Your task to perform on an android device: Clear the shopping cart on newegg.com. Image 0: 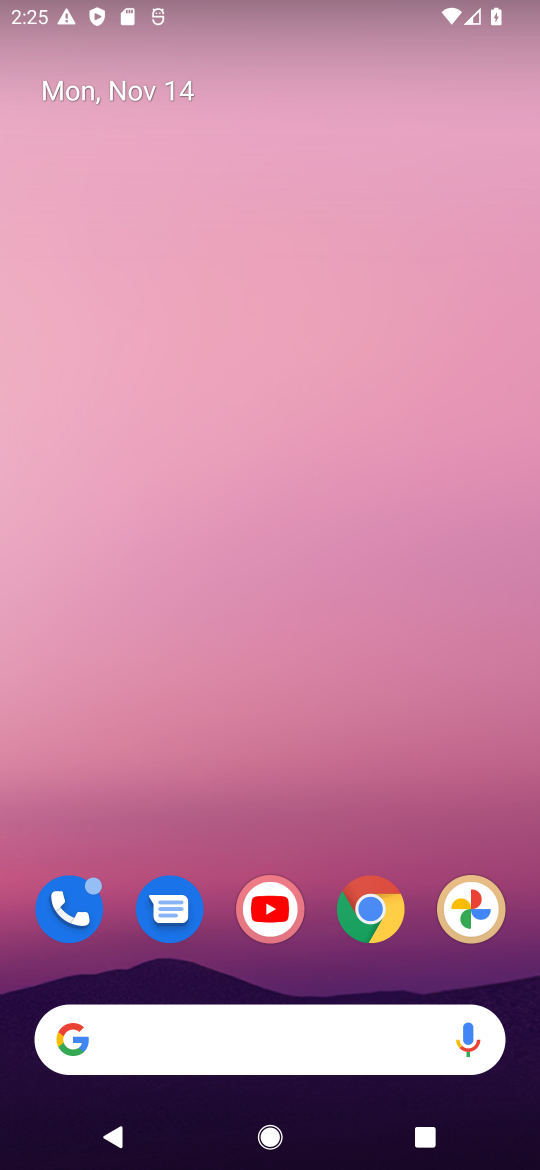
Step 0: drag from (326, 988) to (352, 149)
Your task to perform on an android device: Clear the shopping cart on newegg.com. Image 1: 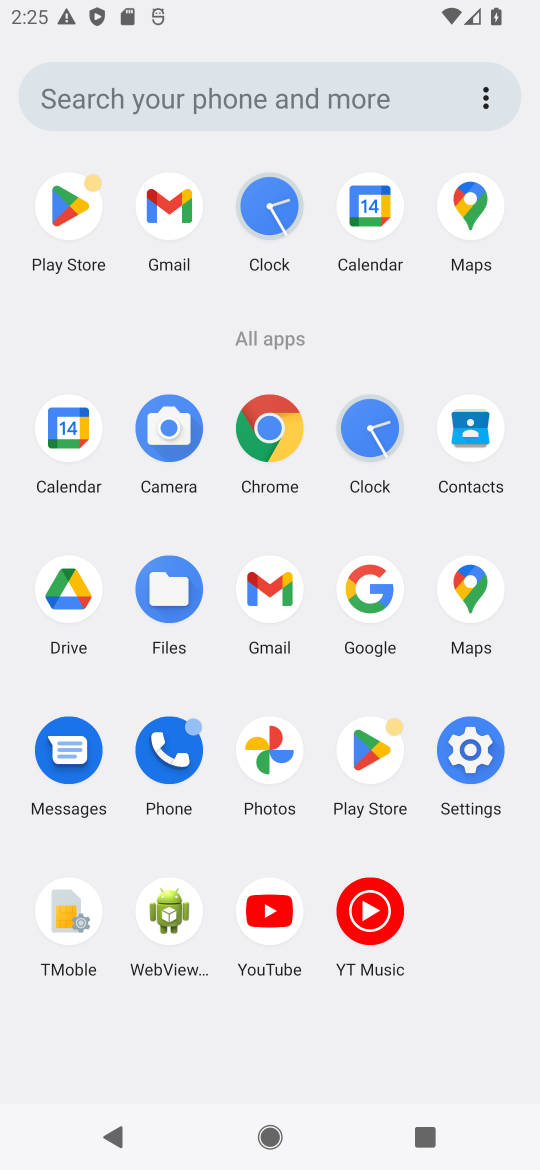
Step 1: click (265, 442)
Your task to perform on an android device: Clear the shopping cart on newegg.com. Image 2: 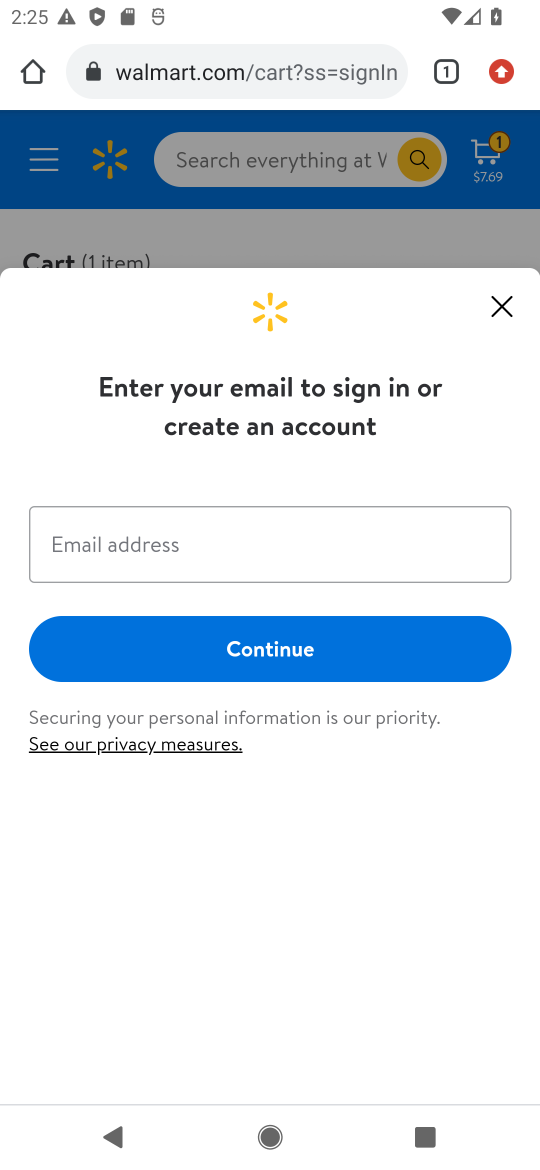
Step 2: click (313, 63)
Your task to perform on an android device: Clear the shopping cart on newegg.com. Image 3: 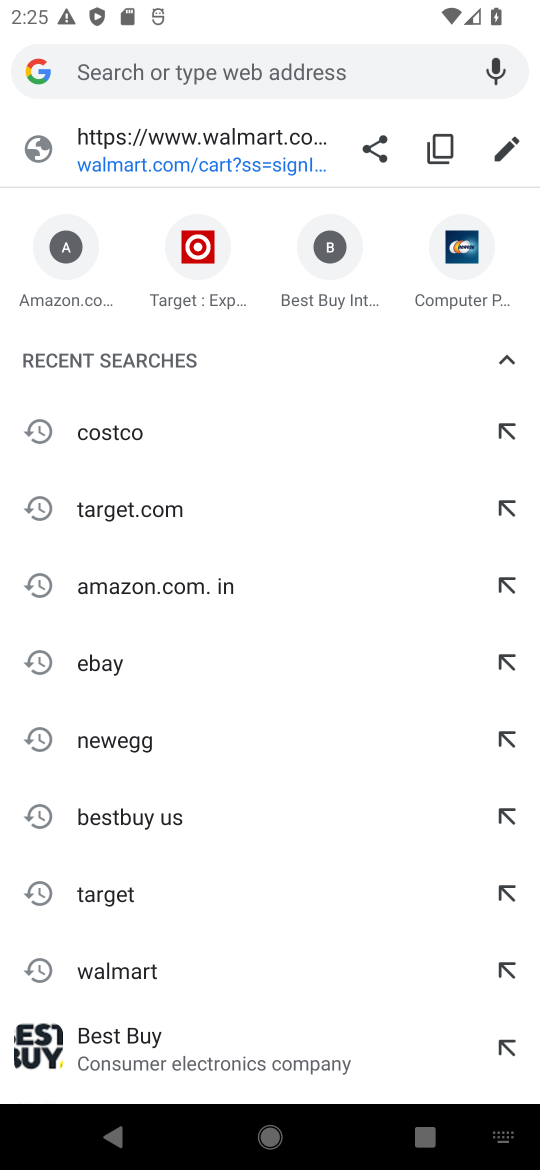
Step 3: type "newegg.com"
Your task to perform on an android device: Clear the shopping cart on newegg.com. Image 4: 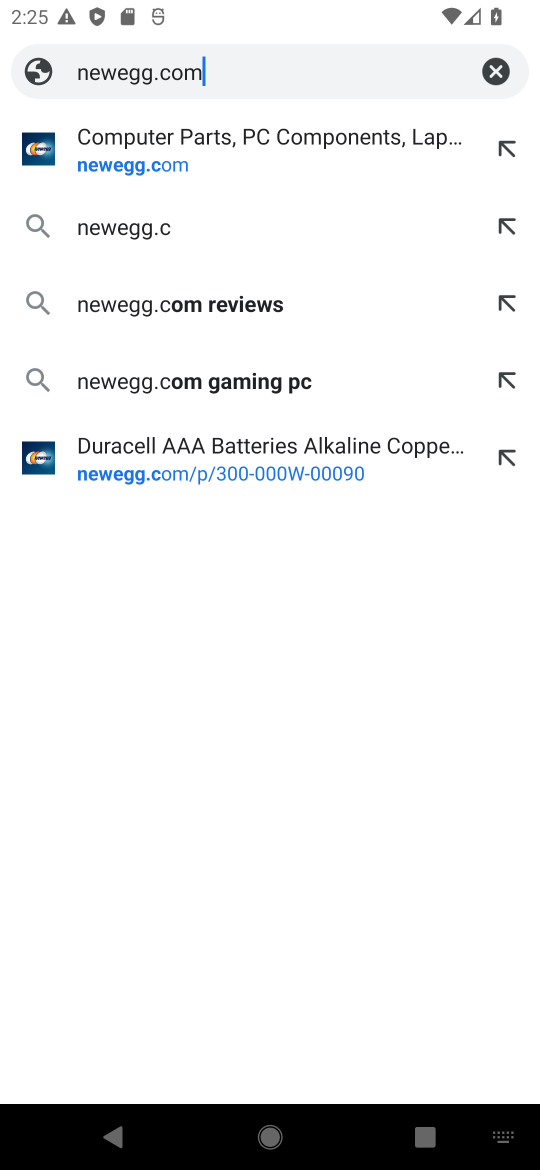
Step 4: press enter
Your task to perform on an android device: Clear the shopping cart on newegg.com. Image 5: 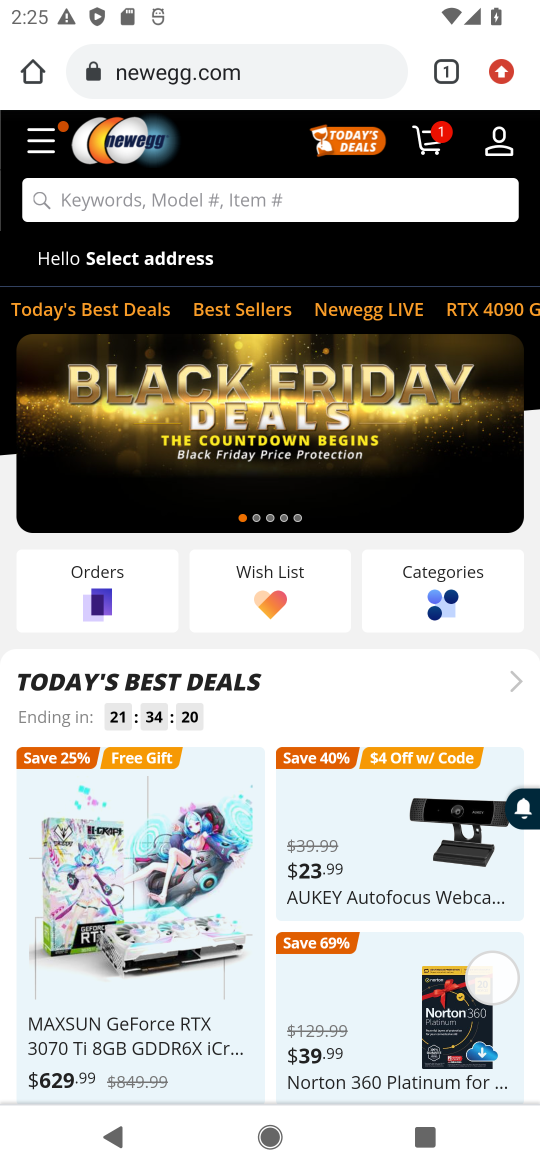
Step 5: click (436, 130)
Your task to perform on an android device: Clear the shopping cart on newegg.com. Image 6: 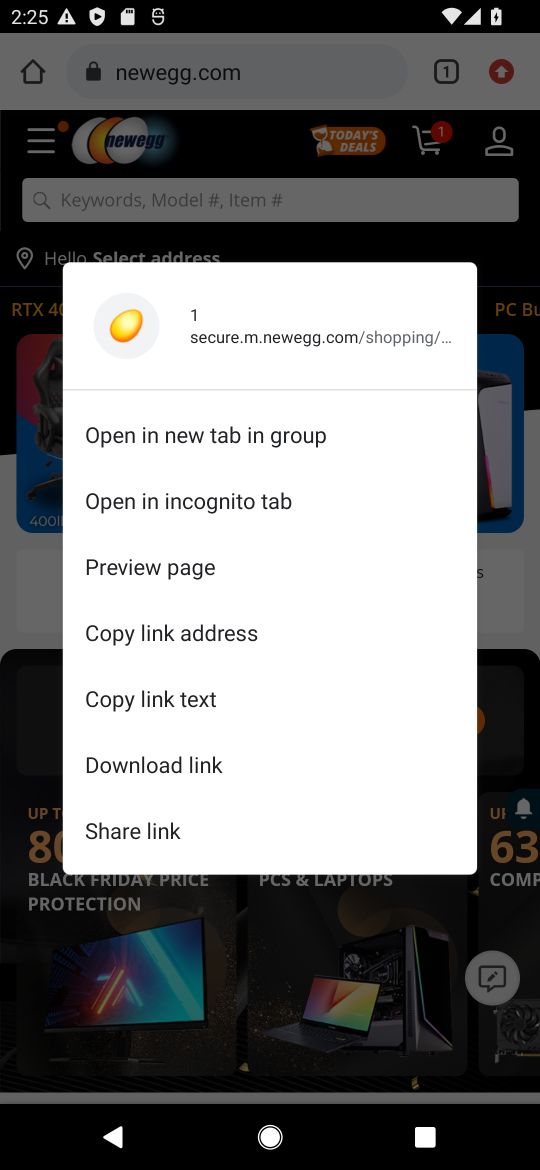
Step 6: click (426, 186)
Your task to perform on an android device: Clear the shopping cart on newegg.com. Image 7: 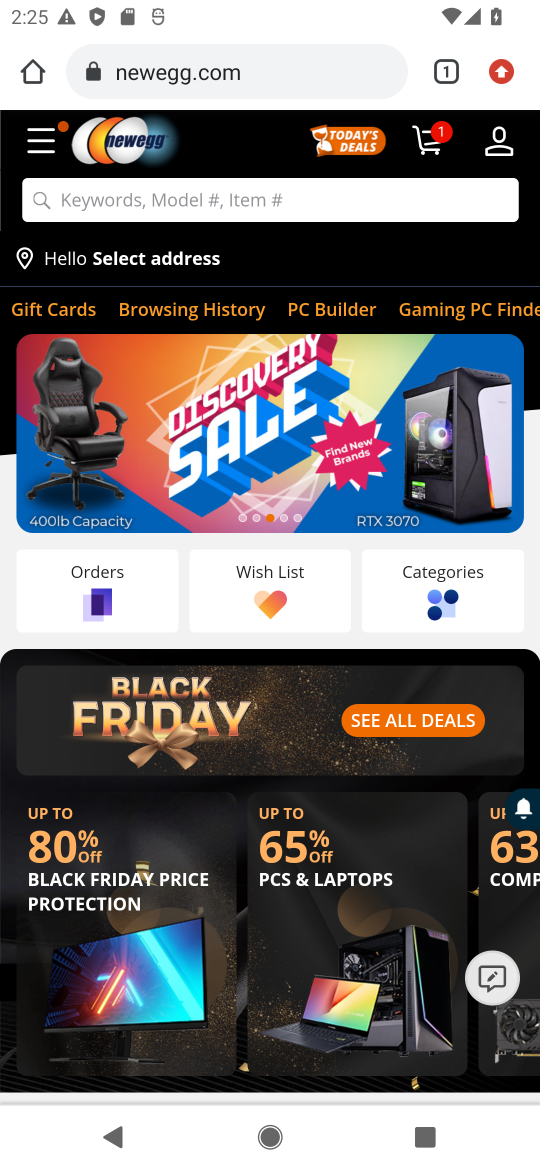
Step 7: click (444, 140)
Your task to perform on an android device: Clear the shopping cart on newegg.com. Image 8: 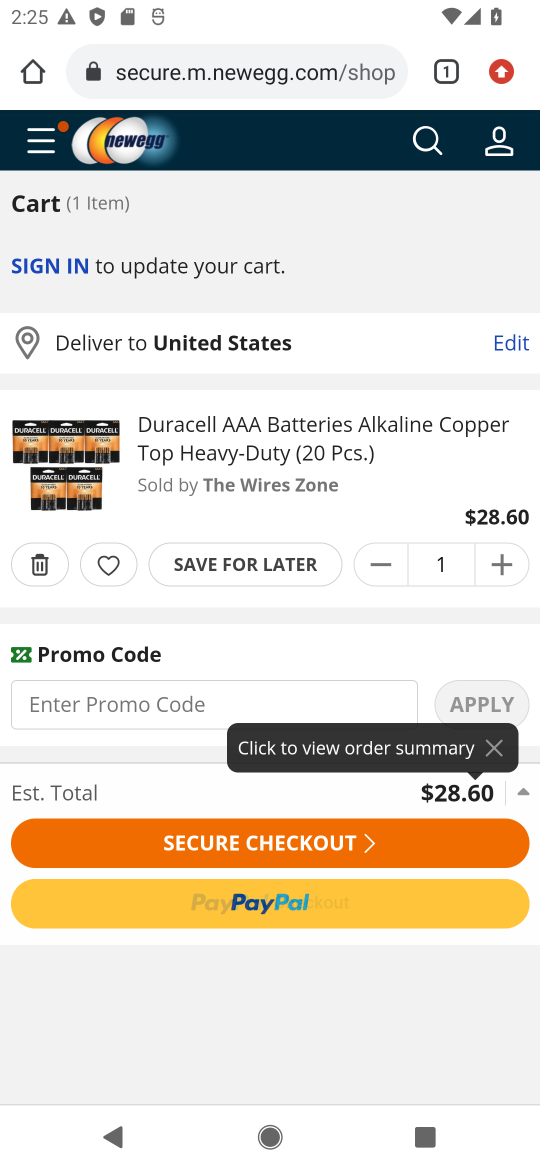
Step 8: click (28, 555)
Your task to perform on an android device: Clear the shopping cart on newegg.com. Image 9: 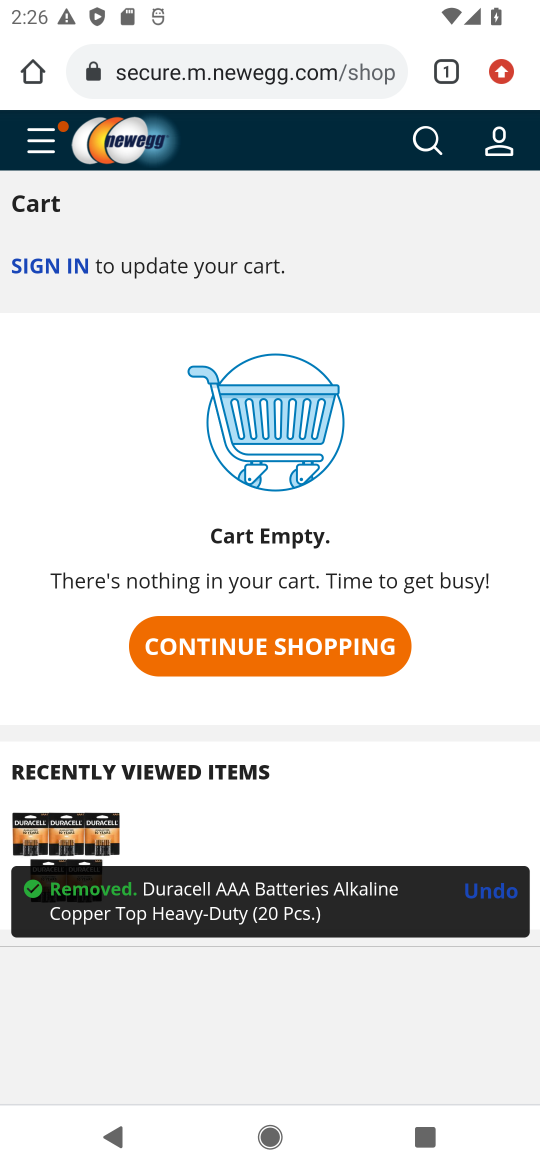
Step 9: task complete